Your task to perform on an android device: Search for sushi restaurants on Maps Image 0: 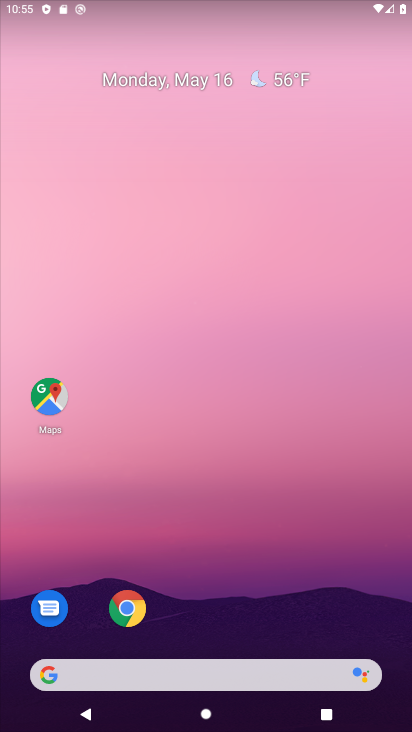
Step 0: drag from (367, 495) to (318, 251)
Your task to perform on an android device: Search for sushi restaurants on Maps Image 1: 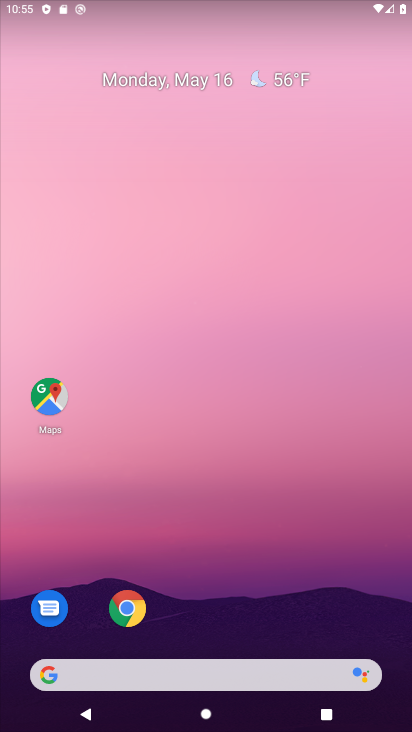
Step 1: drag from (365, 566) to (342, 205)
Your task to perform on an android device: Search for sushi restaurants on Maps Image 2: 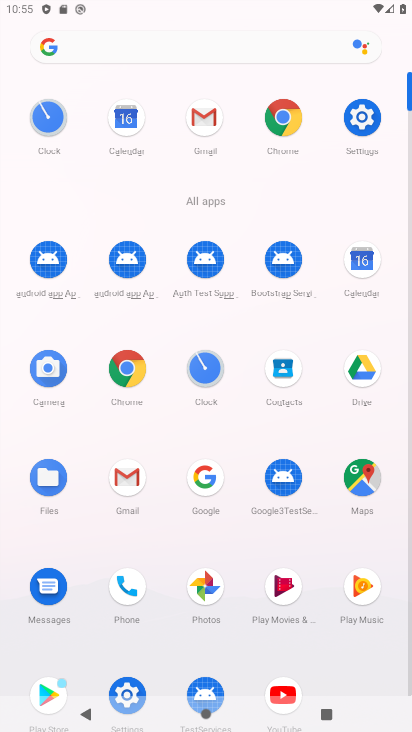
Step 2: click (360, 474)
Your task to perform on an android device: Search for sushi restaurants on Maps Image 3: 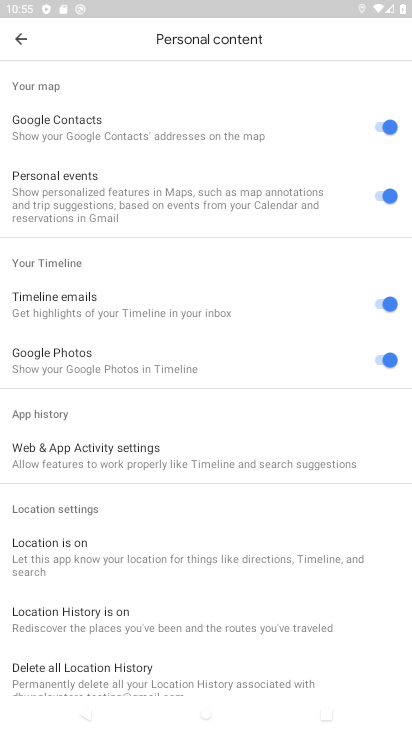
Step 3: click (27, 35)
Your task to perform on an android device: Search for sushi restaurants on Maps Image 4: 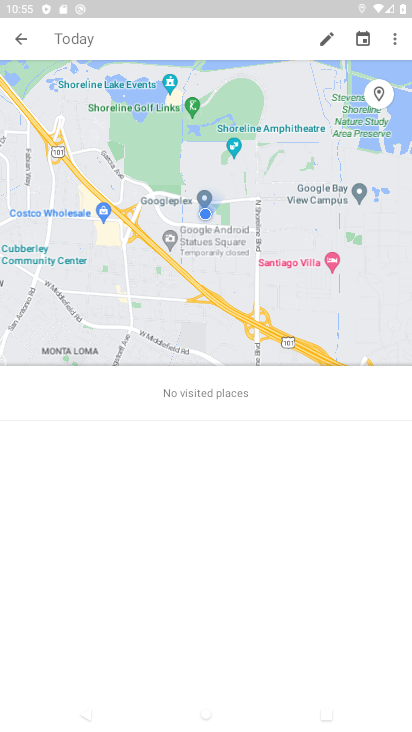
Step 4: click (20, 46)
Your task to perform on an android device: Search for sushi restaurants on Maps Image 5: 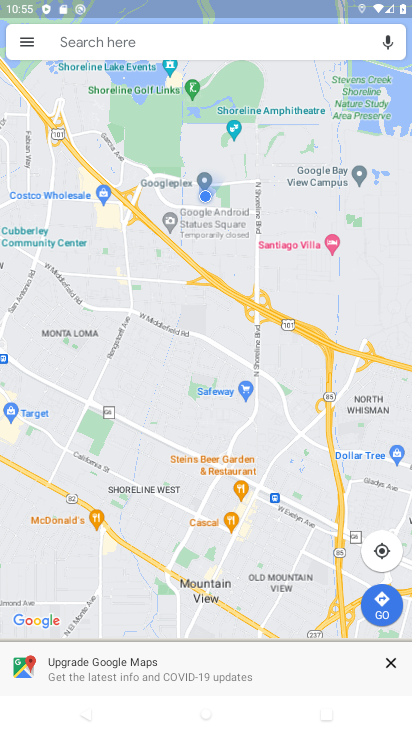
Step 5: click (122, 53)
Your task to perform on an android device: Search for sushi restaurants on Maps Image 6: 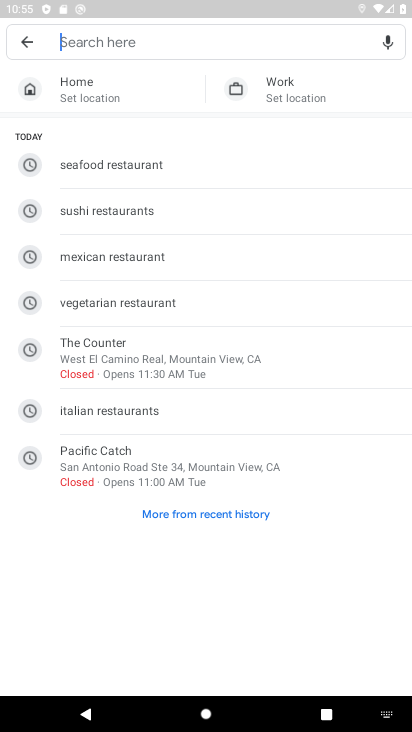
Step 6: type "sushi restaurants"
Your task to perform on an android device: Search for sushi restaurants on Maps Image 7: 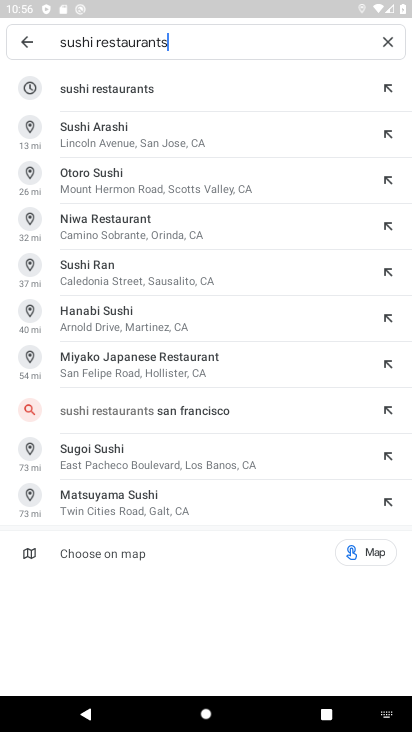
Step 7: click (105, 96)
Your task to perform on an android device: Search for sushi restaurants on Maps Image 8: 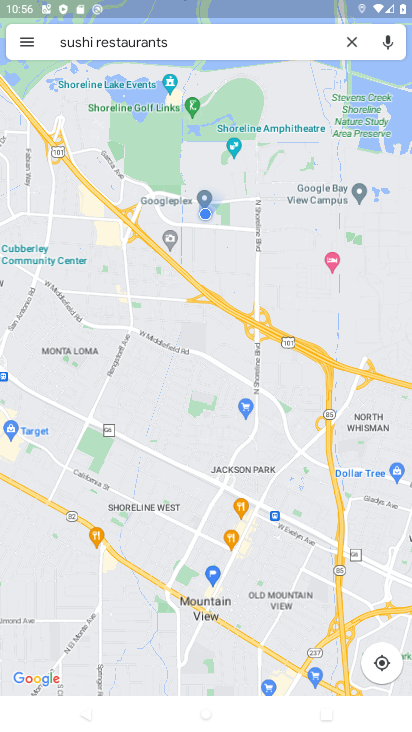
Step 8: task complete